Your task to perform on an android device: move an email to a new category in the gmail app Image 0: 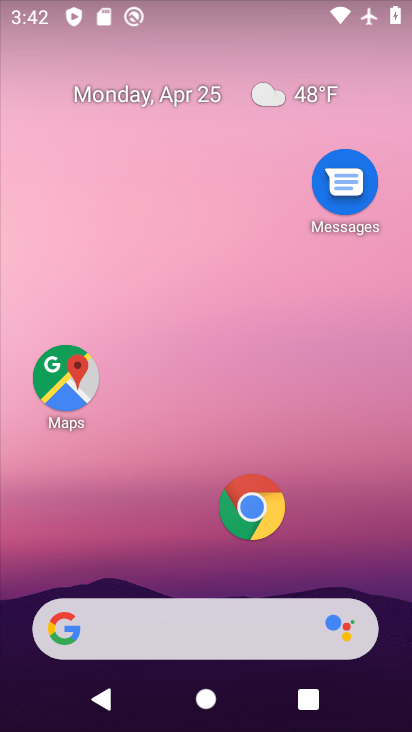
Step 0: drag from (132, 569) to (182, 110)
Your task to perform on an android device: move an email to a new category in the gmail app Image 1: 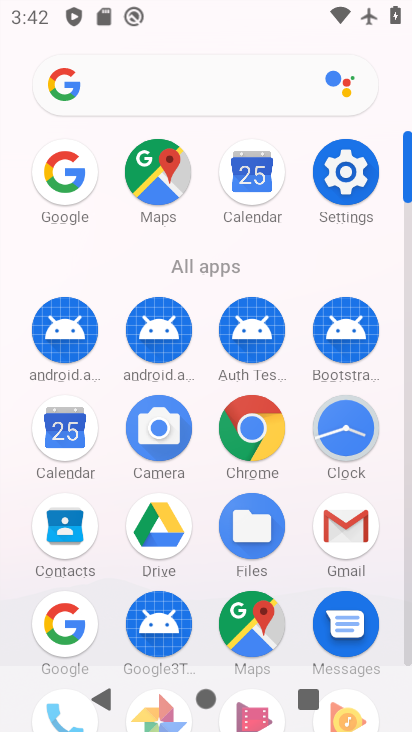
Step 1: click (362, 560)
Your task to perform on an android device: move an email to a new category in the gmail app Image 2: 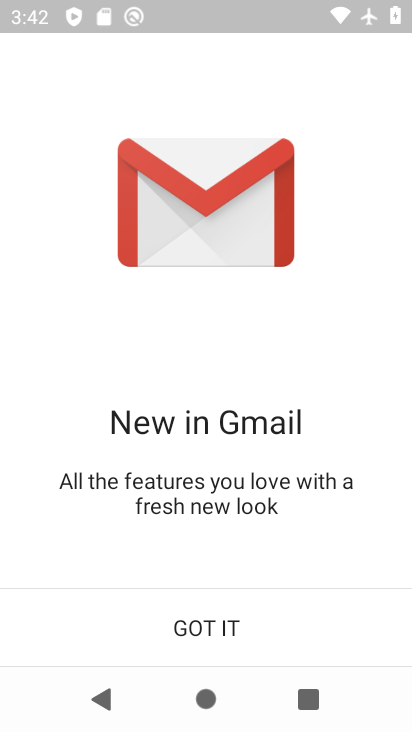
Step 2: click (271, 614)
Your task to perform on an android device: move an email to a new category in the gmail app Image 3: 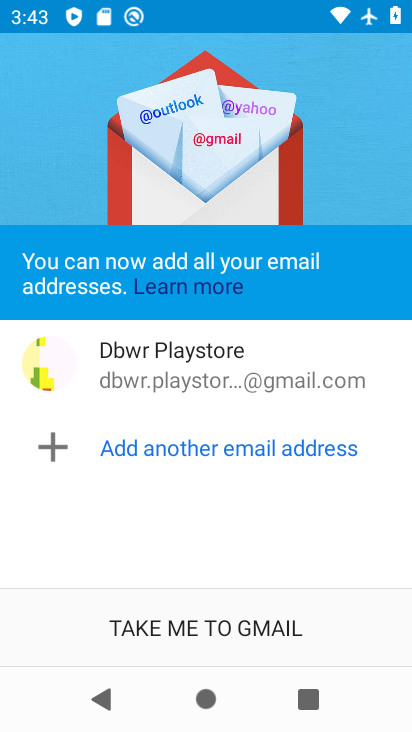
Step 3: click (270, 621)
Your task to perform on an android device: move an email to a new category in the gmail app Image 4: 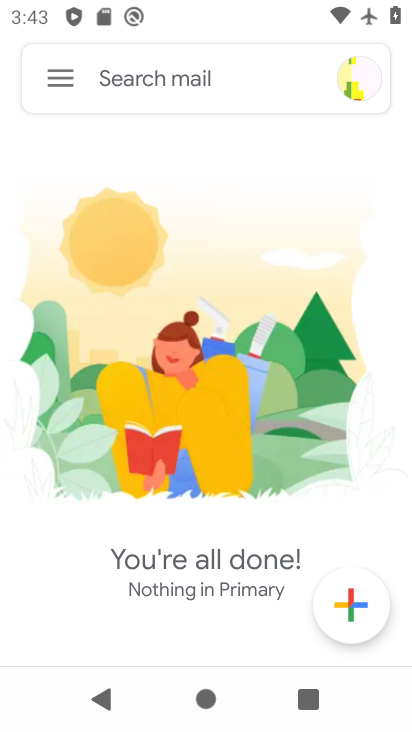
Step 4: click (78, 78)
Your task to perform on an android device: move an email to a new category in the gmail app Image 5: 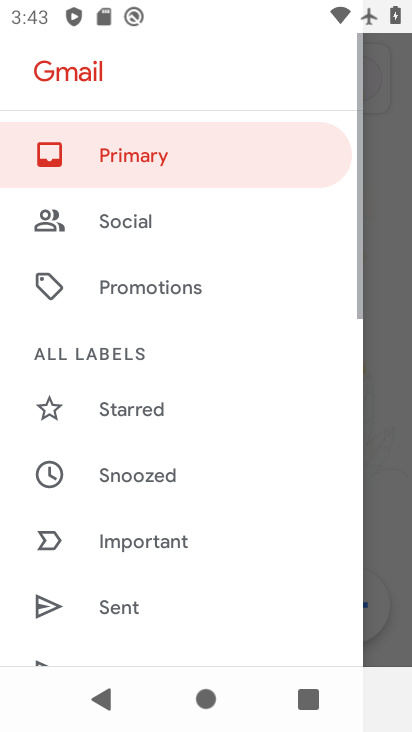
Step 5: drag from (216, 608) to (284, 217)
Your task to perform on an android device: move an email to a new category in the gmail app Image 6: 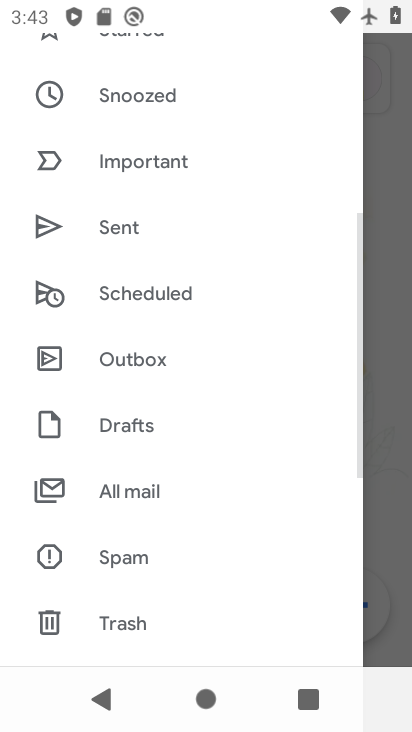
Step 6: click (207, 492)
Your task to perform on an android device: move an email to a new category in the gmail app Image 7: 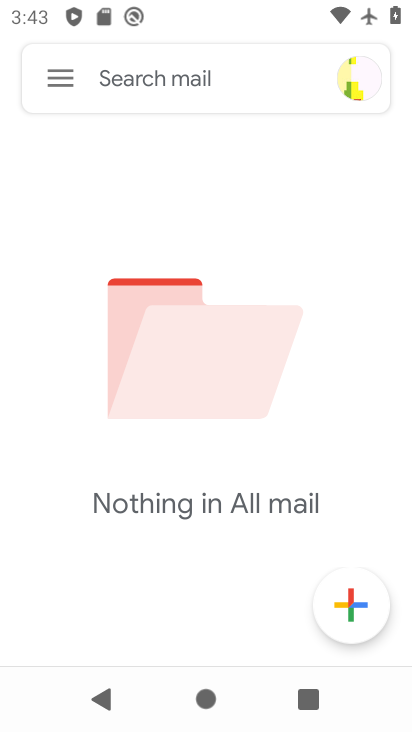
Step 7: task complete